Your task to perform on an android device: Open settings on Google Maps Image 0: 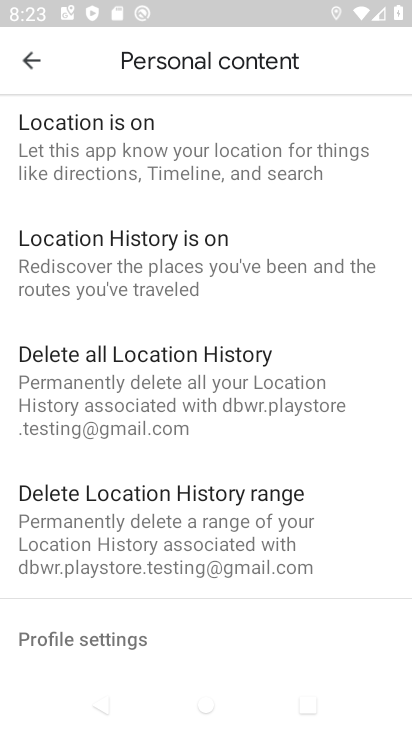
Step 0: press home button
Your task to perform on an android device: Open settings on Google Maps Image 1: 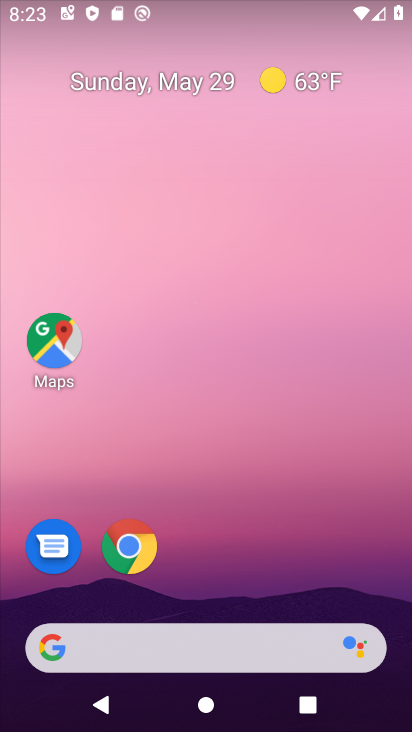
Step 1: click (52, 352)
Your task to perform on an android device: Open settings on Google Maps Image 2: 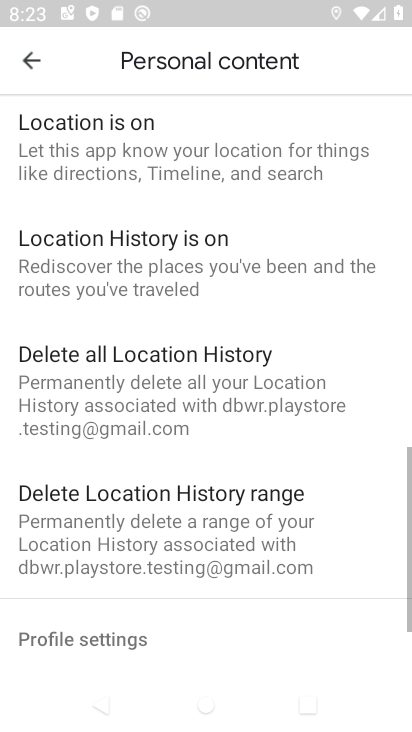
Step 2: click (27, 67)
Your task to perform on an android device: Open settings on Google Maps Image 3: 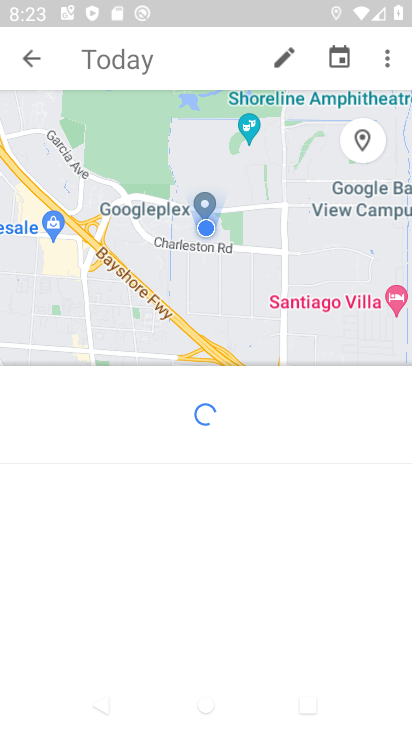
Step 3: click (32, 54)
Your task to perform on an android device: Open settings on Google Maps Image 4: 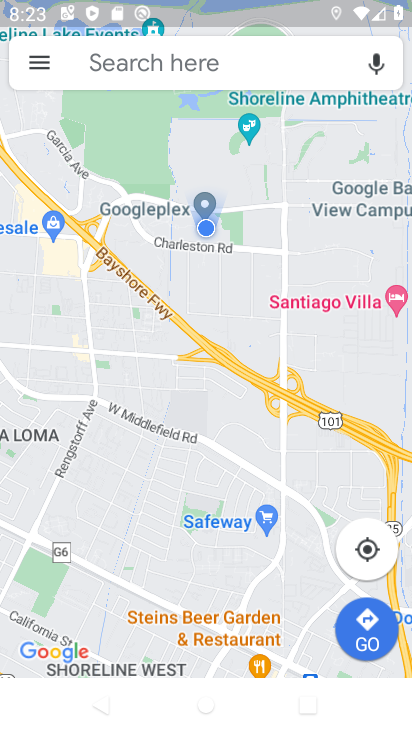
Step 4: click (44, 67)
Your task to perform on an android device: Open settings on Google Maps Image 5: 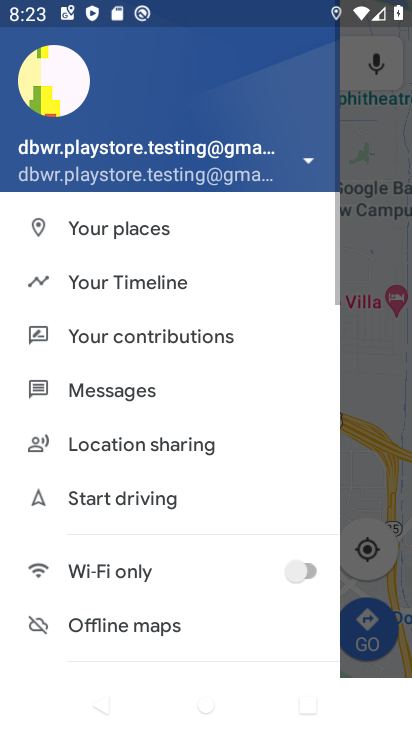
Step 5: drag from (163, 608) to (292, 22)
Your task to perform on an android device: Open settings on Google Maps Image 6: 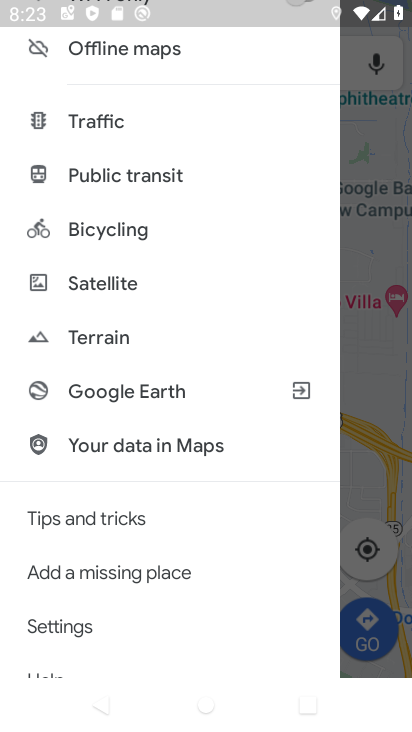
Step 6: drag from (149, 604) to (260, 76)
Your task to perform on an android device: Open settings on Google Maps Image 7: 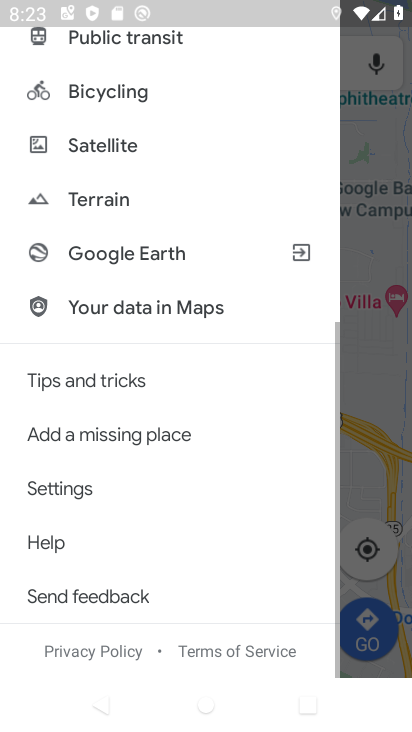
Step 7: click (80, 494)
Your task to perform on an android device: Open settings on Google Maps Image 8: 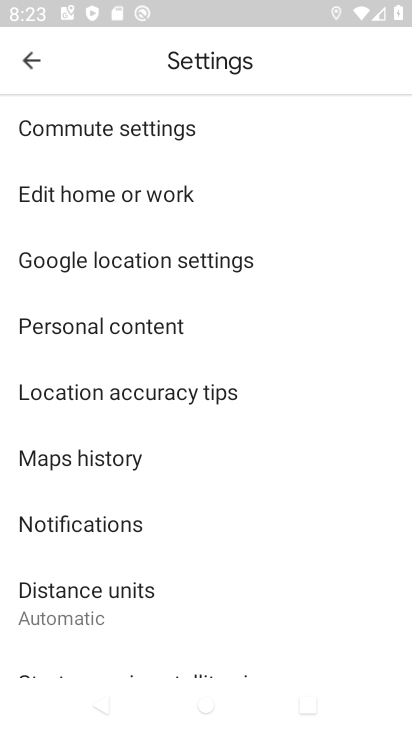
Step 8: task complete